Your task to perform on an android device: Open CNN.com Image 0: 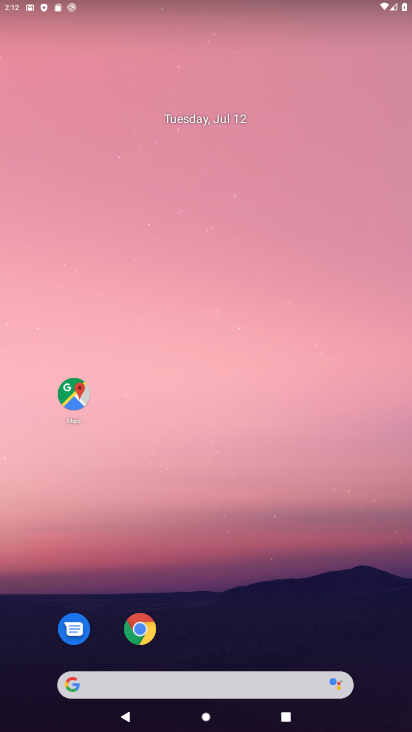
Step 0: click (143, 628)
Your task to perform on an android device: Open CNN.com Image 1: 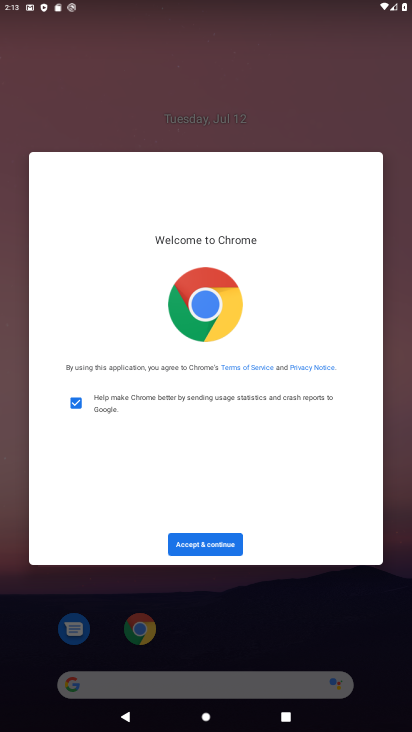
Step 1: click (230, 545)
Your task to perform on an android device: Open CNN.com Image 2: 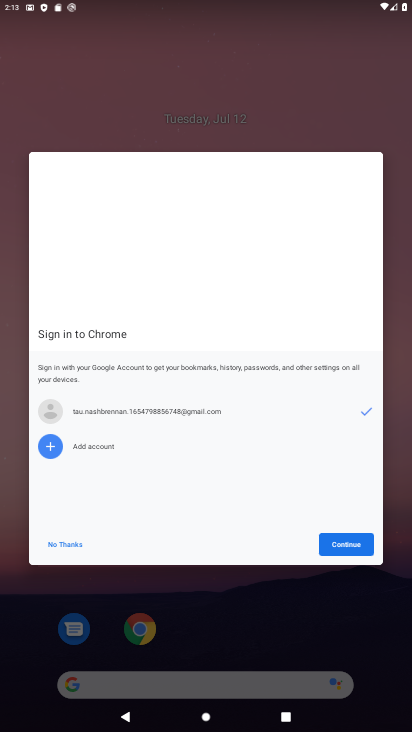
Step 2: click (345, 548)
Your task to perform on an android device: Open CNN.com Image 3: 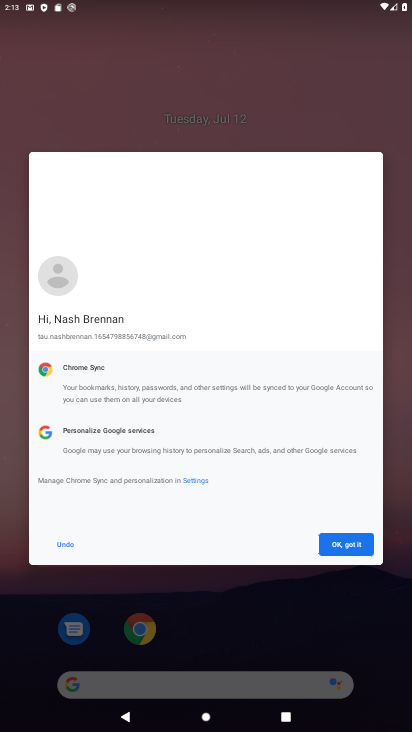
Step 3: click (345, 548)
Your task to perform on an android device: Open CNN.com Image 4: 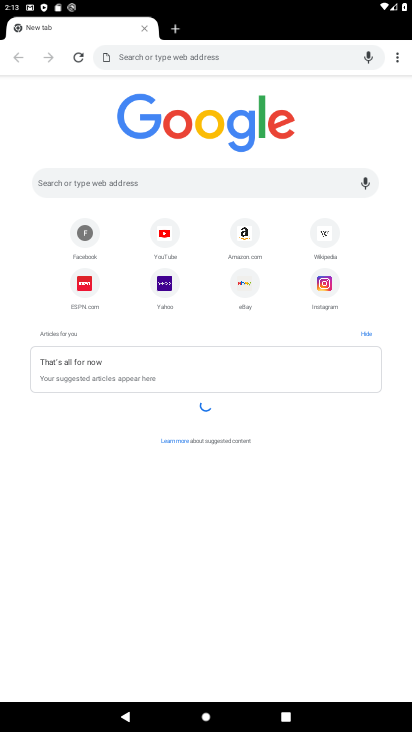
Step 4: click (253, 57)
Your task to perform on an android device: Open CNN.com Image 5: 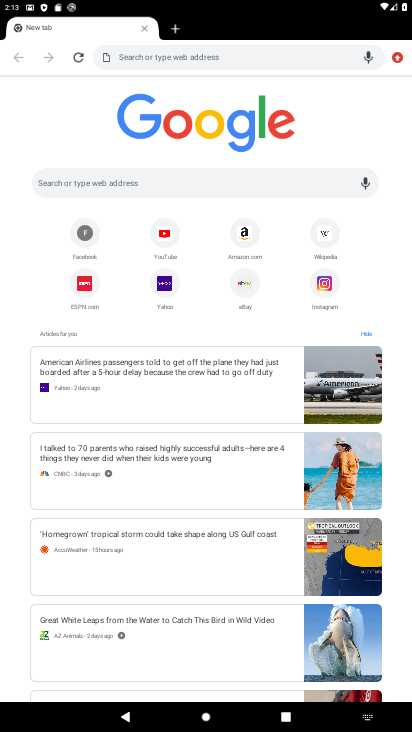
Step 5: type "CNN.com"
Your task to perform on an android device: Open CNN.com Image 6: 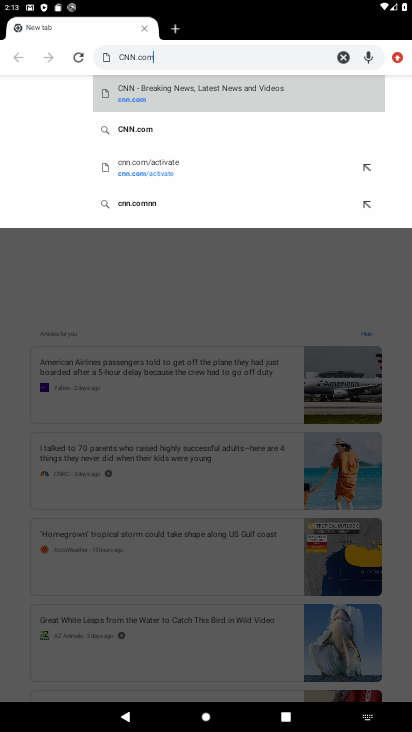
Step 6: click (146, 129)
Your task to perform on an android device: Open CNN.com Image 7: 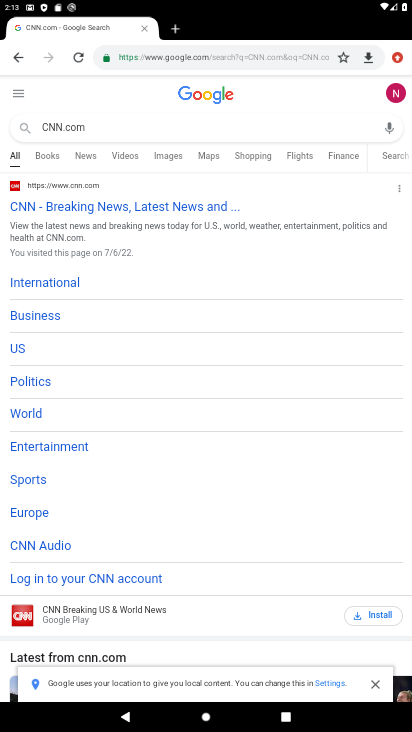
Step 7: click (103, 207)
Your task to perform on an android device: Open CNN.com Image 8: 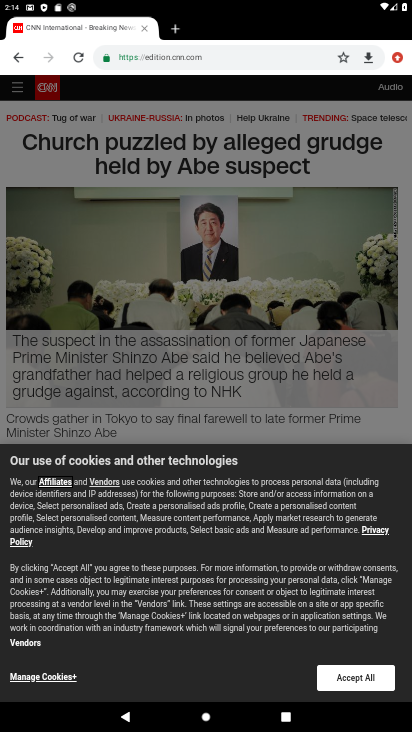
Step 8: click (348, 680)
Your task to perform on an android device: Open CNN.com Image 9: 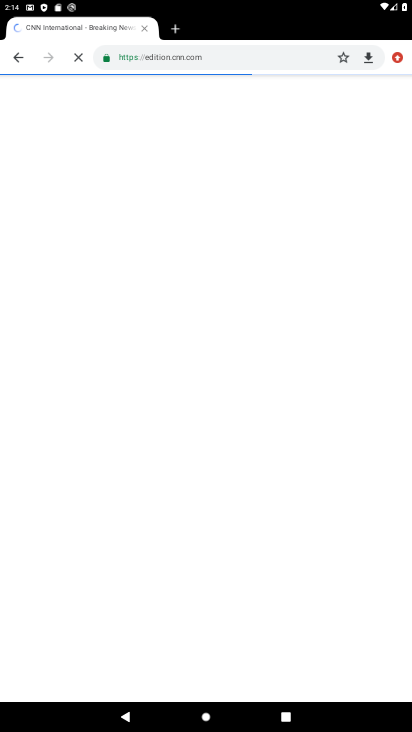
Step 9: task complete